Your task to perform on an android device: Open Google Chrome and open the bookmarks view Image 0: 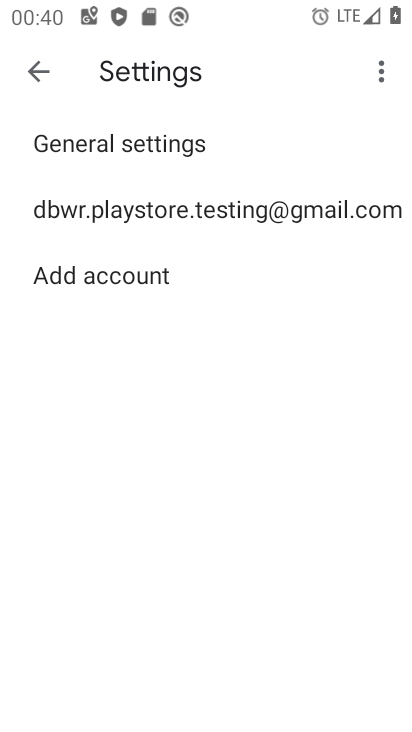
Step 0: press home button
Your task to perform on an android device: Open Google Chrome and open the bookmarks view Image 1: 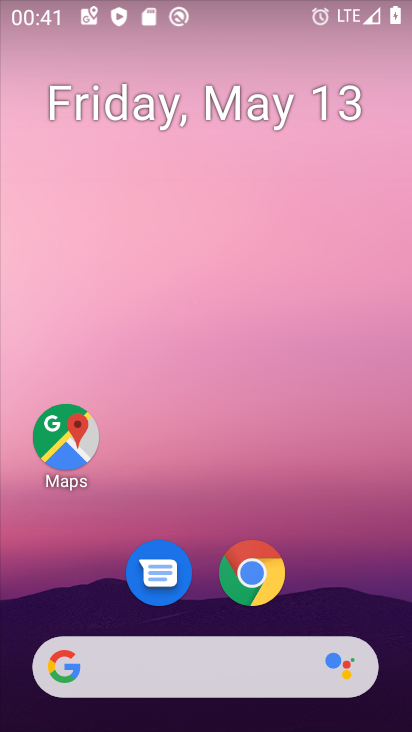
Step 1: click (253, 583)
Your task to perform on an android device: Open Google Chrome and open the bookmarks view Image 2: 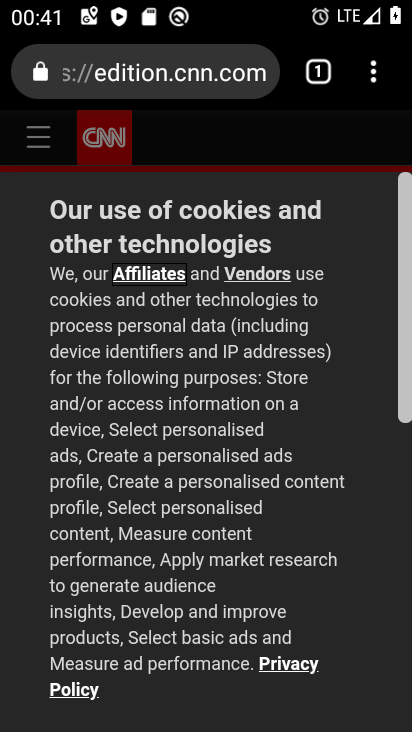
Step 2: click (378, 74)
Your task to perform on an android device: Open Google Chrome and open the bookmarks view Image 3: 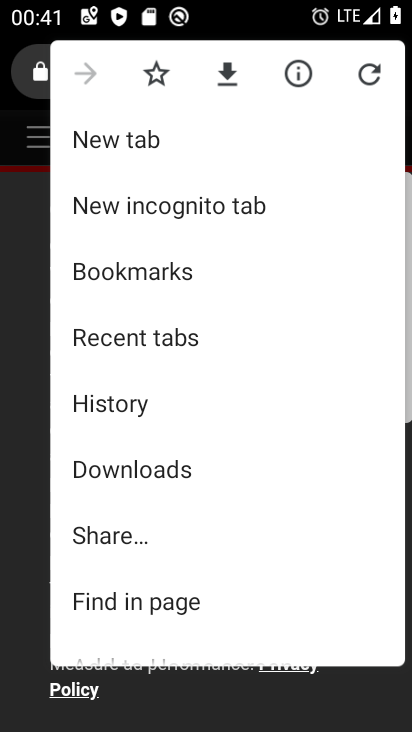
Step 3: click (136, 262)
Your task to perform on an android device: Open Google Chrome and open the bookmarks view Image 4: 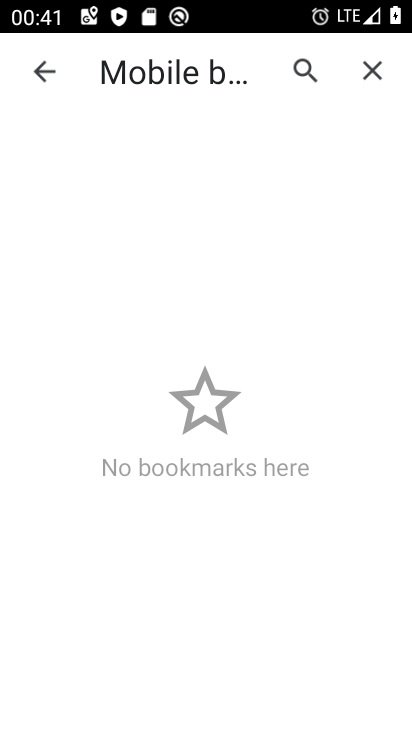
Step 4: task complete